Your task to perform on an android device: open device folders in google photos Image 0: 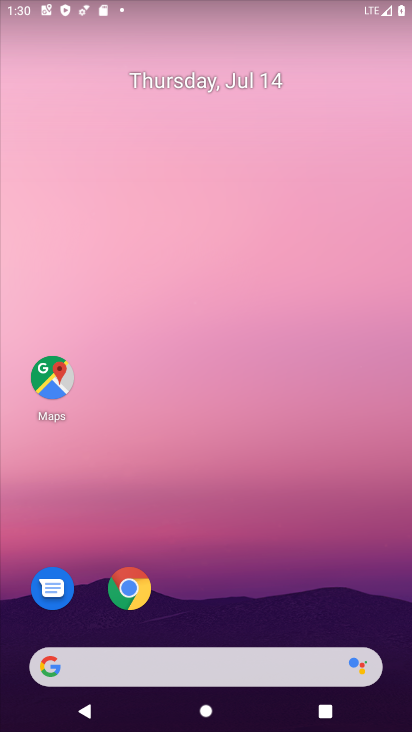
Step 0: drag from (287, 603) to (287, 64)
Your task to perform on an android device: open device folders in google photos Image 1: 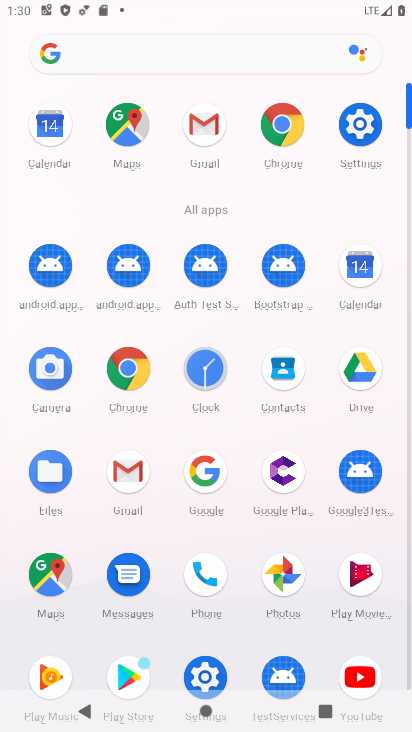
Step 1: click (287, 565)
Your task to perform on an android device: open device folders in google photos Image 2: 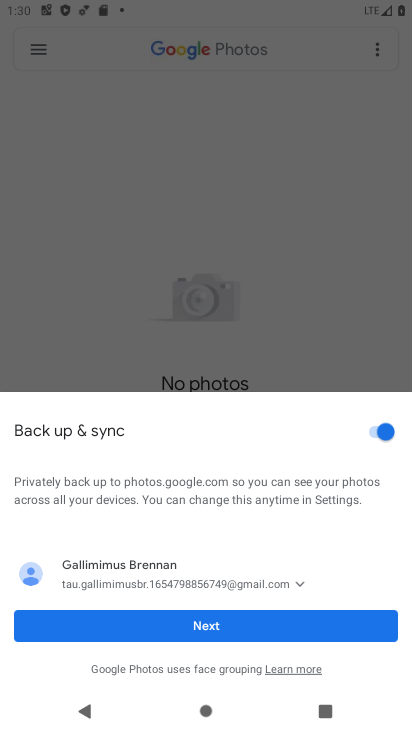
Step 2: click (278, 618)
Your task to perform on an android device: open device folders in google photos Image 3: 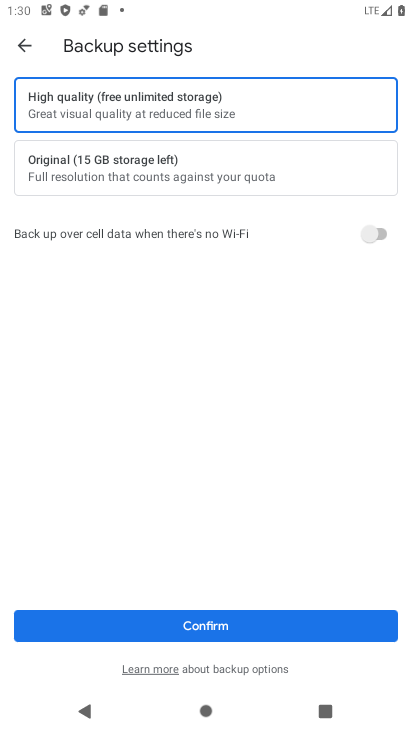
Step 3: click (26, 51)
Your task to perform on an android device: open device folders in google photos Image 4: 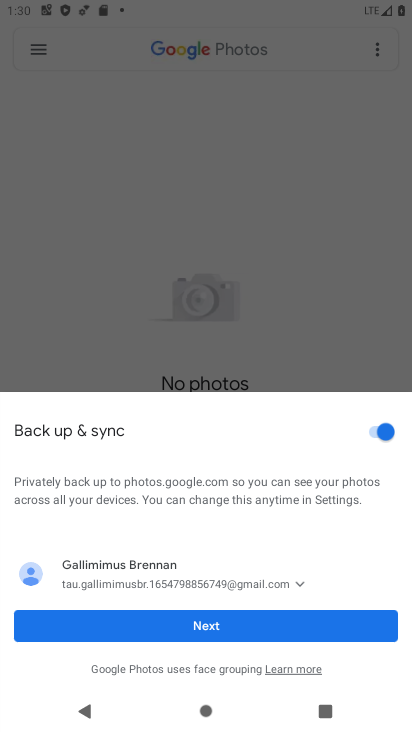
Step 4: click (102, 165)
Your task to perform on an android device: open device folders in google photos Image 5: 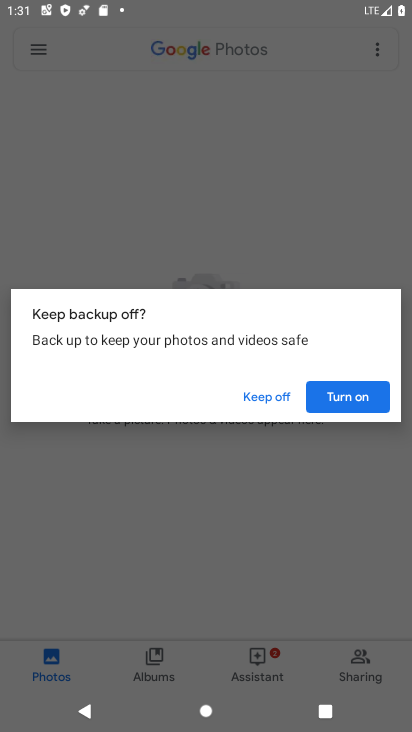
Step 5: click (320, 388)
Your task to perform on an android device: open device folders in google photos Image 6: 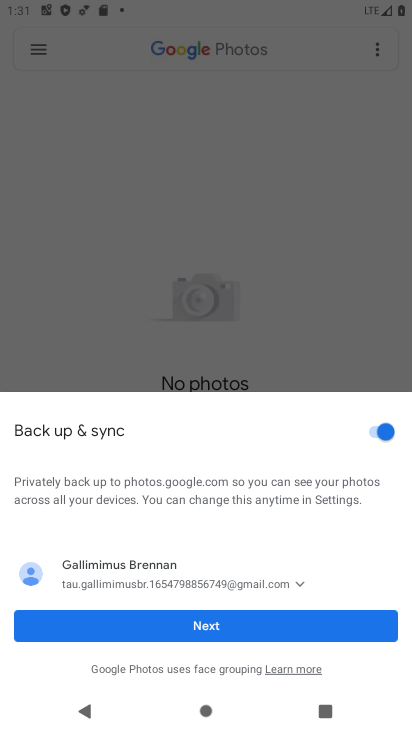
Step 6: click (246, 632)
Your task to perform on an android device: open device folders in google photos Image 7: 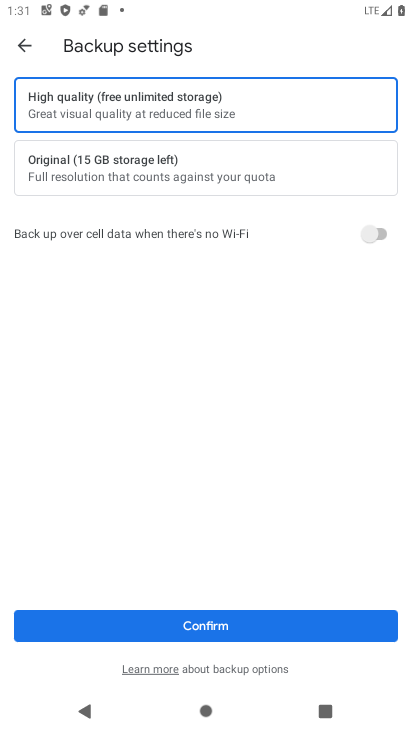
Step 7: click (246, 632)
Your task to perform on an android device: open device folders in google photos Image 8: 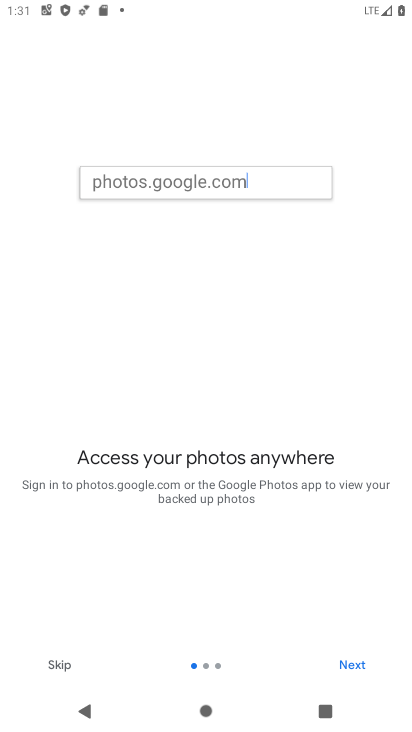
Step 8: click (349, 663)
Your task to perform on an android device: open device folders in google photos Image 9: 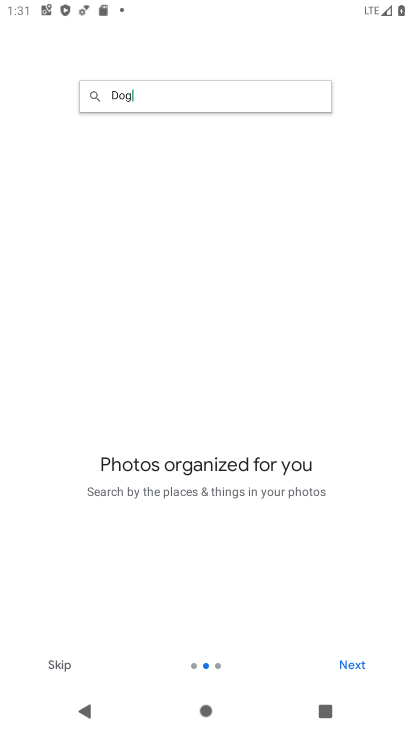
Step 9: click (349, 663)
Your task to perform on an android device: open device folders in google photos Image 10: 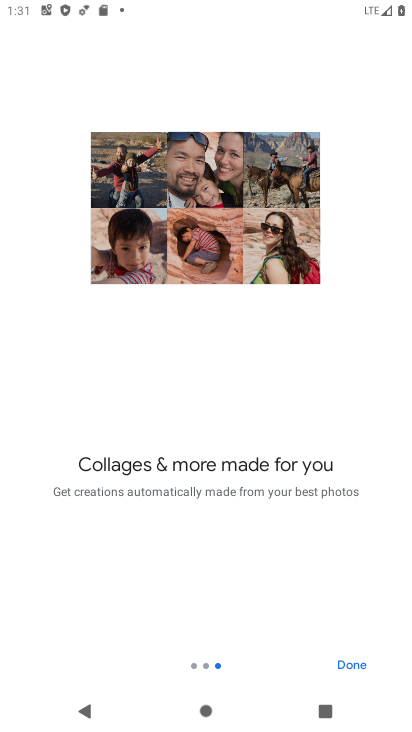
Step 10: click (349, 663)
Your task to perform on an android device: open device folders in google photos Image 11: 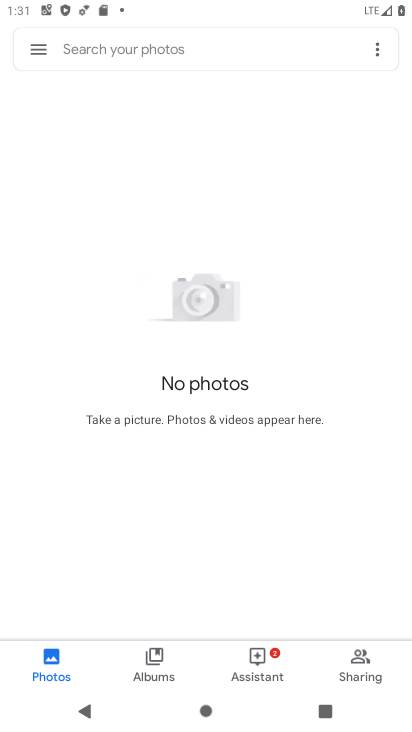
Step 11: click (43, 47)
Your task to perform on an android device: open device folders in google photos Image 12: 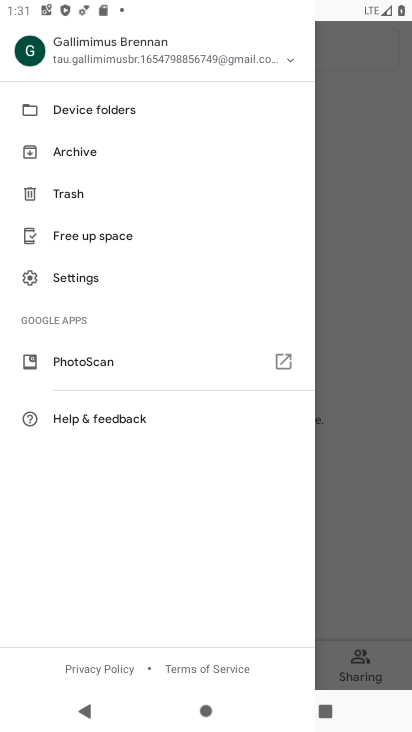
Step 12: click (101, 104)
Your task to perform on an android device: open device folders in google photos Image 13: 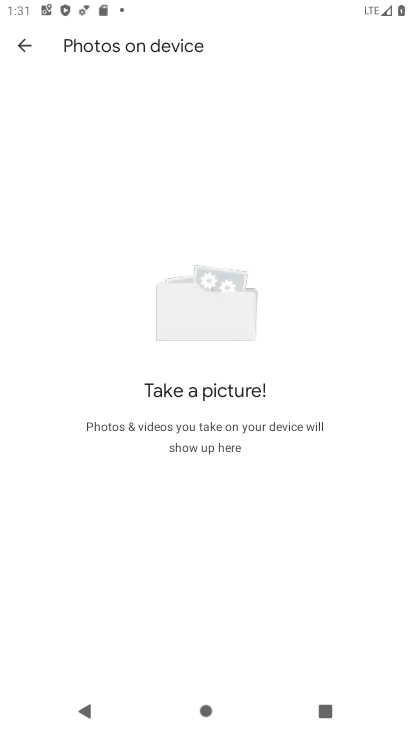
Step 13: task complete